Your task to perform on an android device: Go to Yahoo.com Image 0: 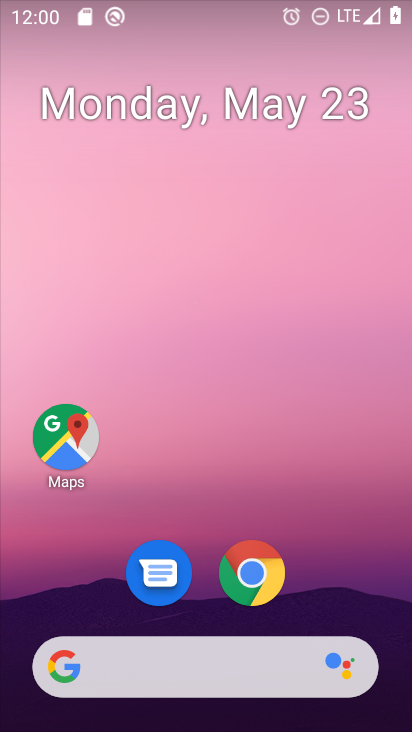
Step 0: click (254, 564)
Your task to perform on an android device: Go to Yahoo.com Image 1: 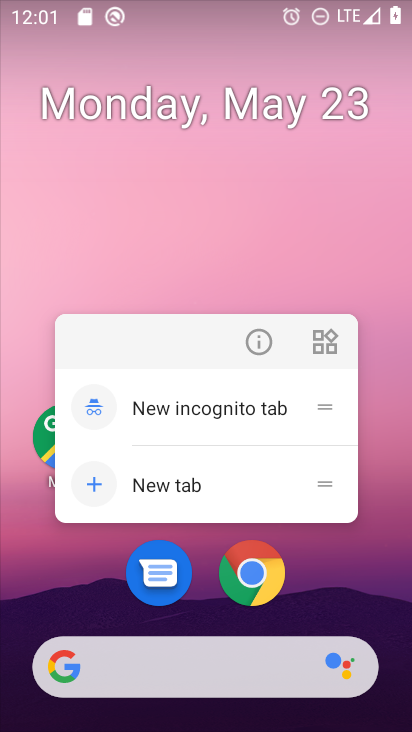
Step 1: click (251, 558)
Your task to perform on an android device: Go to Yahoo.com Image 2: 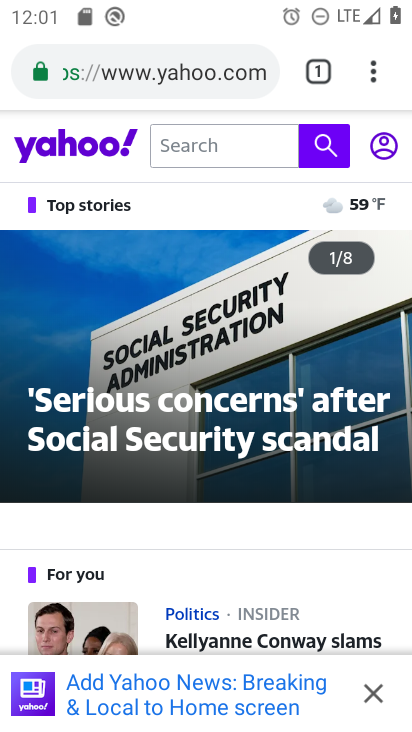
Step 2: task complete